Your task to perform on an android device: toggle notifications settings in the gmail app Image 0: 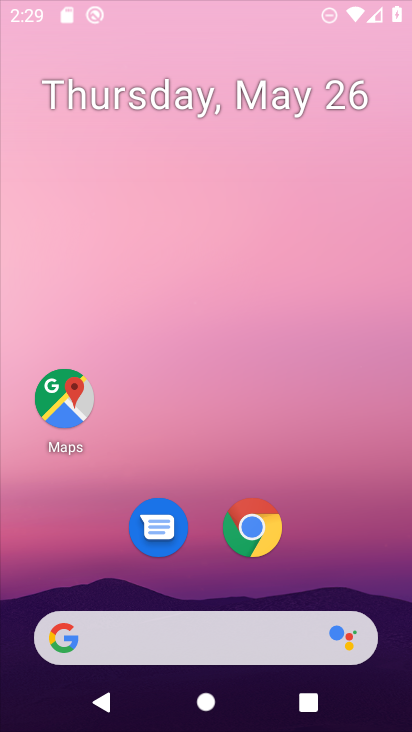
Step 0: click (249, 531)
Your task to perform on an android device: toggle notifications settings in the gmail app Image 1: 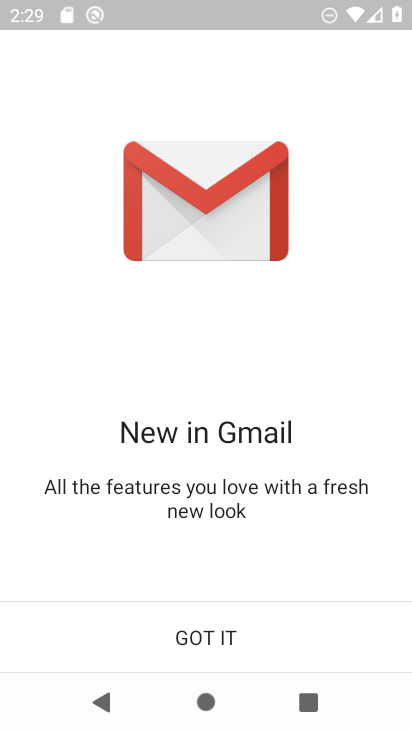
Step 1: click (194, 622)
Your task to perform on an android device: toggle notifications settings in the gmail app Image 2: 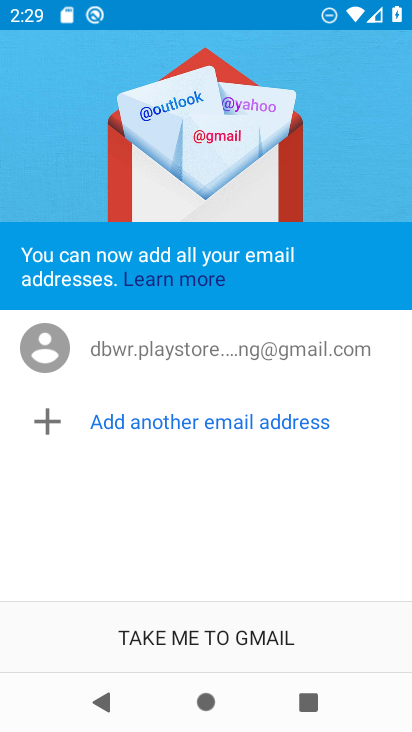
Step 2: click (233, 627)
Your task to perform on an android device: toggle notifications settings in the gmail app Image 3: 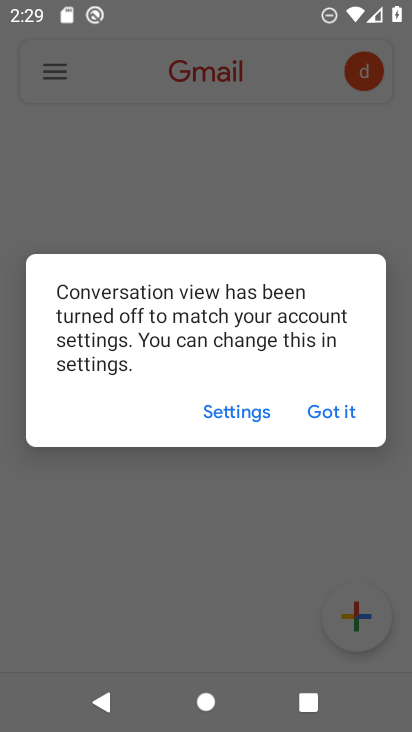
Step 3: click (344, 417)
Your task to perform on an android device: toggle notifications settings in the gmail app Image 4: 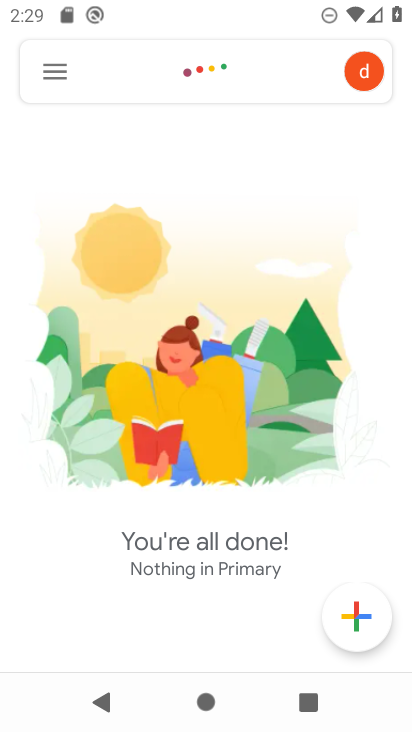
Step 4: click (58, 70)
Your task to perform on an android device: toggle notifications settings in the gmail app Image 5: 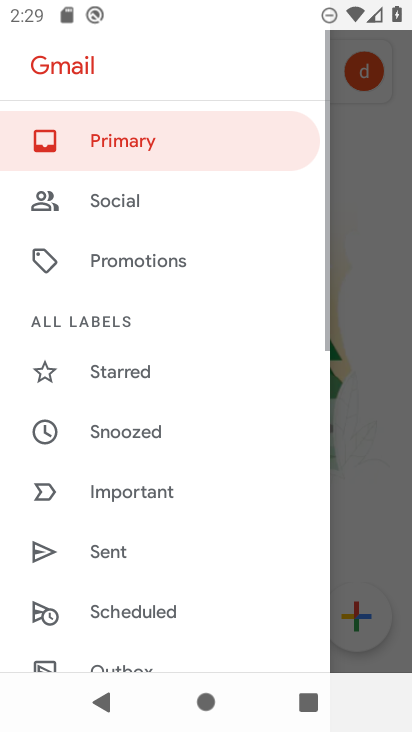
Step 5: drag from (131, 602) to (161, 90)
Your task to perform on an android device: toggle notifications settings in the gmail app Image 6: 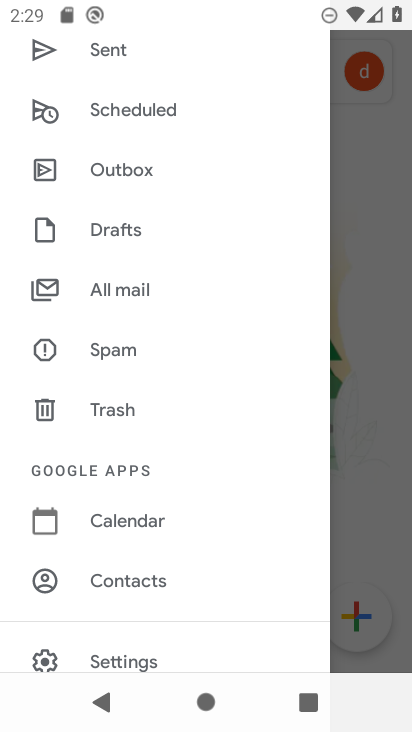
Step 6: click (116, 648)
Your task to perform on an android device: toggle notifications settings in the gmail app Image 7: 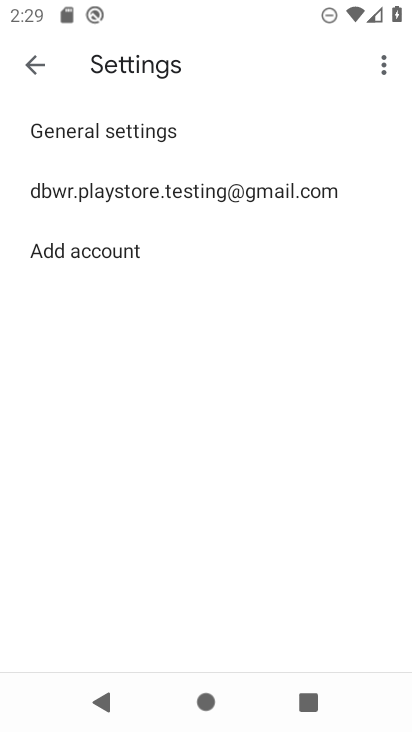
Step 7: click (113, 198)
Your task to perform on an android device: toggle notifications settings in the gmail app Image 8: 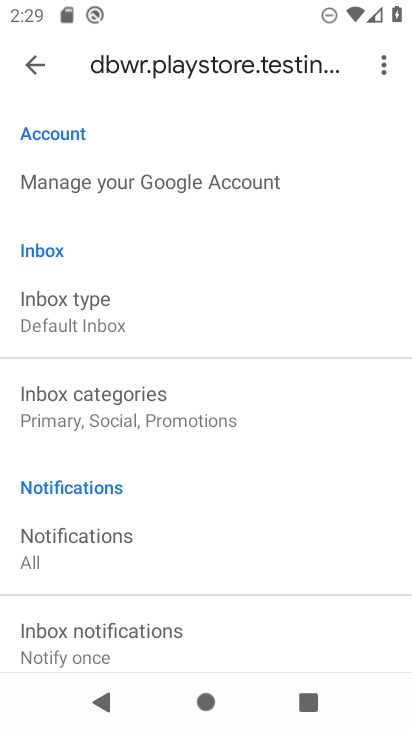
Step 8: drag from (119, 577) to (137, 303)
Your task to perform on an android device: toggle notifications settings in the gmail app Image 9: 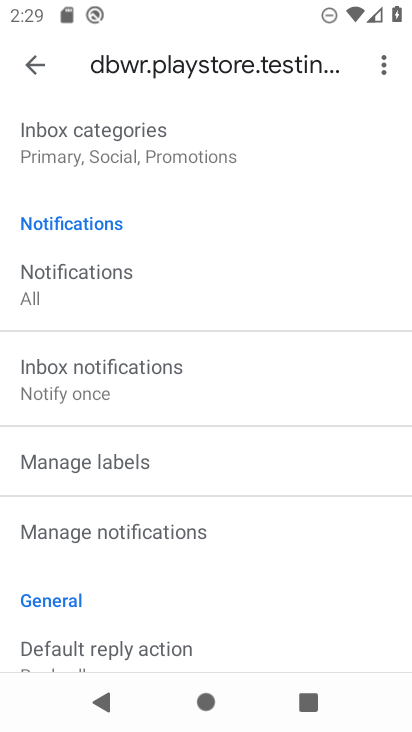
Step 9: click (119, 527)
Your task to perform on an android device: toggle notifications settings in the gmail app Image 10: 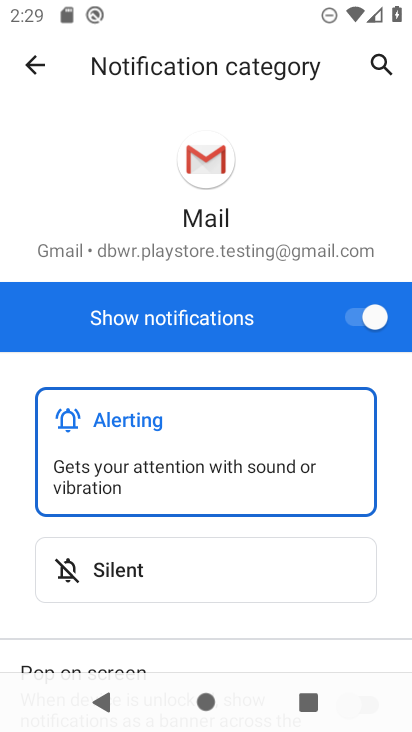
Step 10: click (369, 318)
Your task to perform on an android device: toggle notifications settings in the gmail app Image 11: 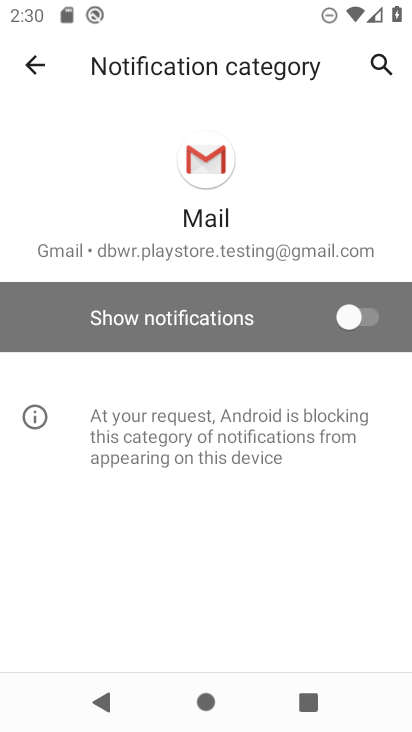
Step 11: task complete